Your task to perform on an android device: Search for the best rated Bluetooth earbuds on Ali express Image 0: 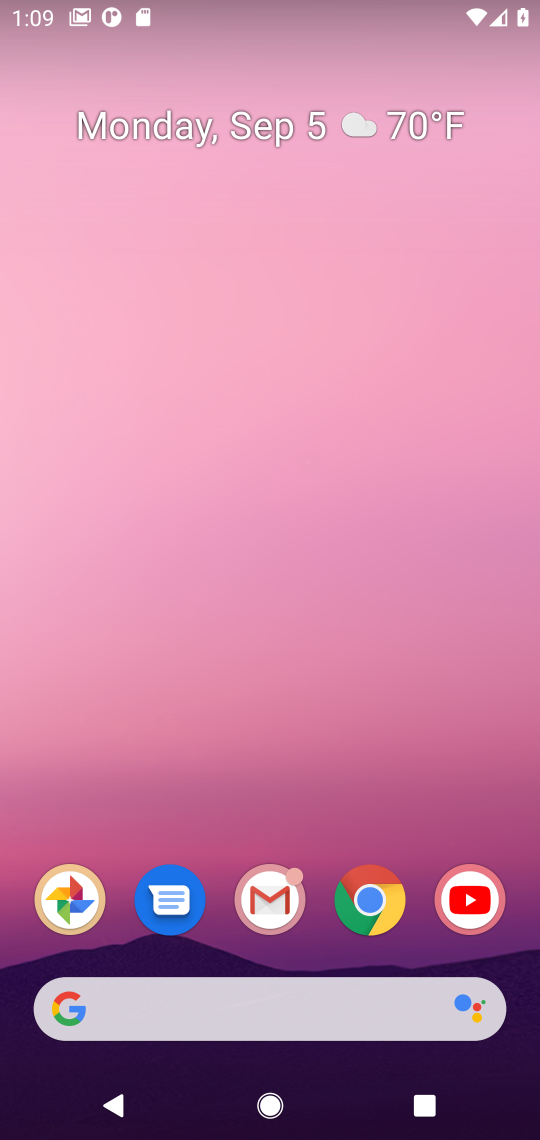
Step 0: click (364, 903)
Your task to perform on an android device: Search for the best rated Bluetooth earbuds on Ali express Image 1: 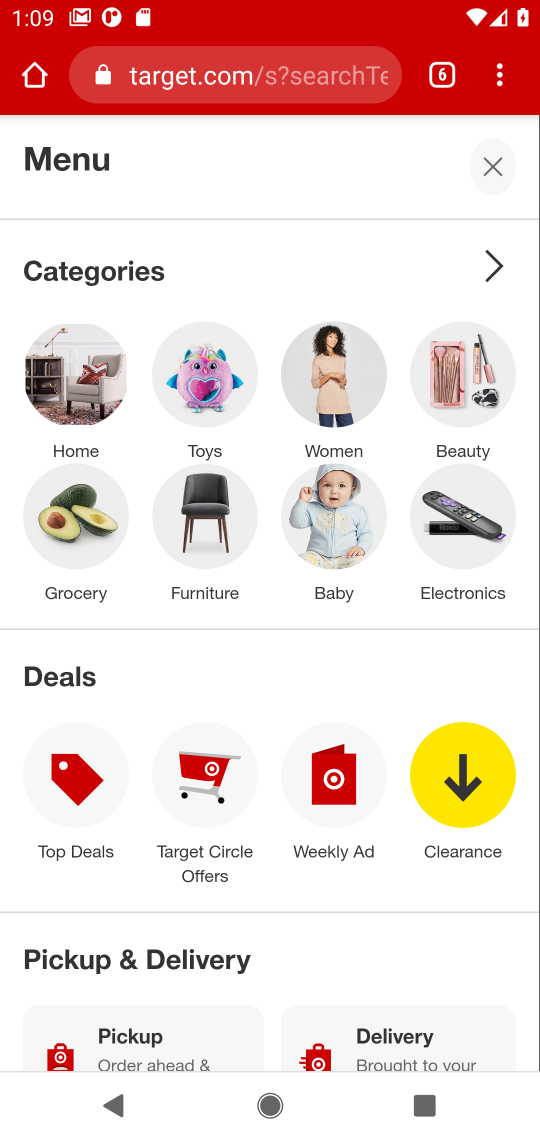
Step 1: click (496, 88)
Your task to perform on an android device: Search for the best rated Bluetooth earbuds on Ali express Image 2: 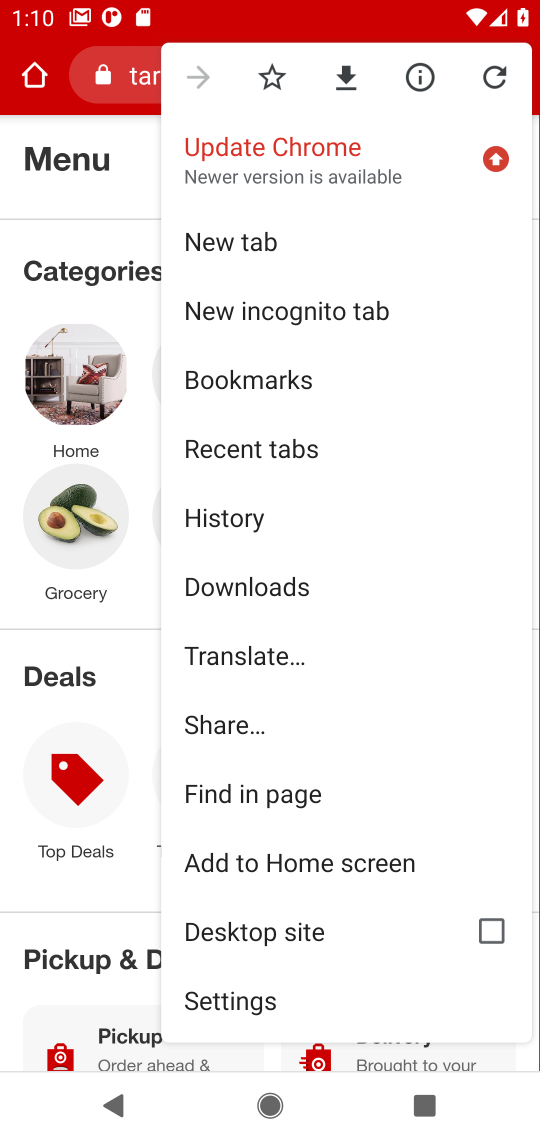
Step 2: click (237, 244)
Your task to perform on an android device: Search for the best rated Bluetooth earbuds on Ali express Image 3: 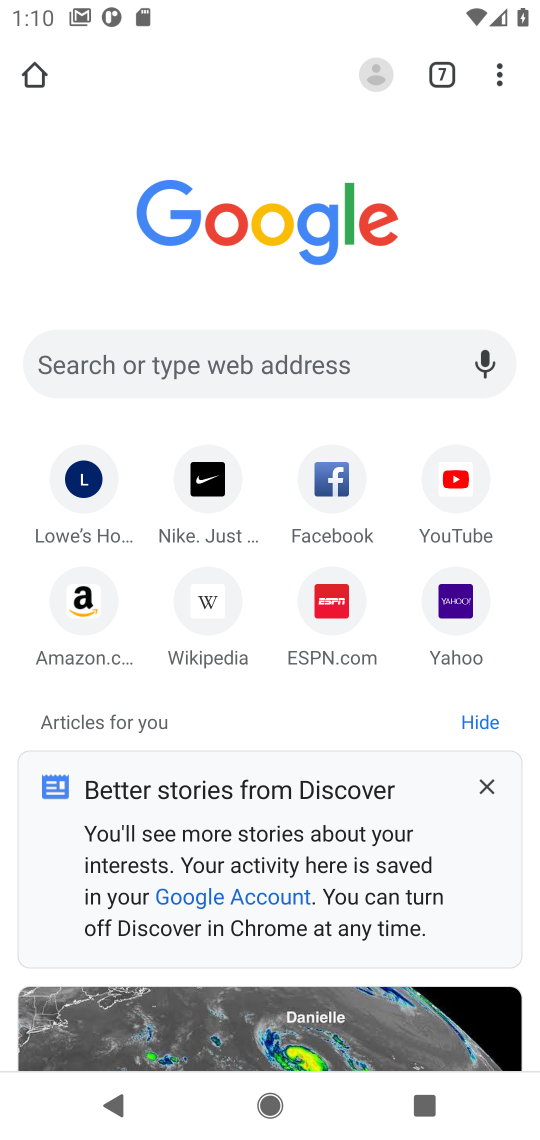
Step 3: click (229, 366)
Your task to perform on an android device: Search for the best rated Bluetooth earbuds on Ali express Image 4: 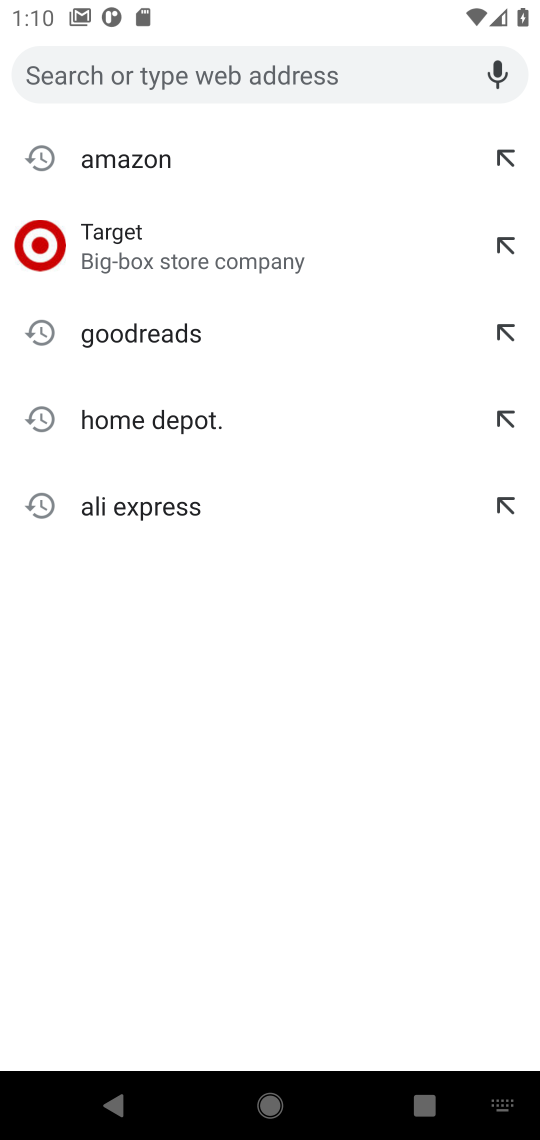
Step 4: type "Ali express"
Your task to perform on an android device: Search for the best rated Bluetooth earbuds on Ali express Image 5: 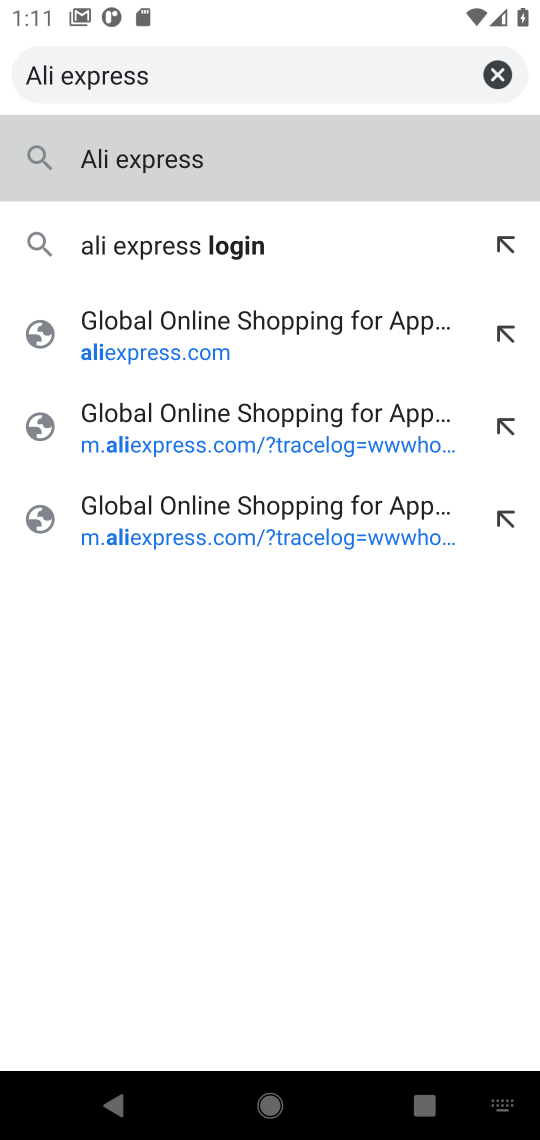
Step 5: click (180, 160)
Your task to perform on an android device: Search for the best rated Bluetooth earbuds on Ali express Image 6: 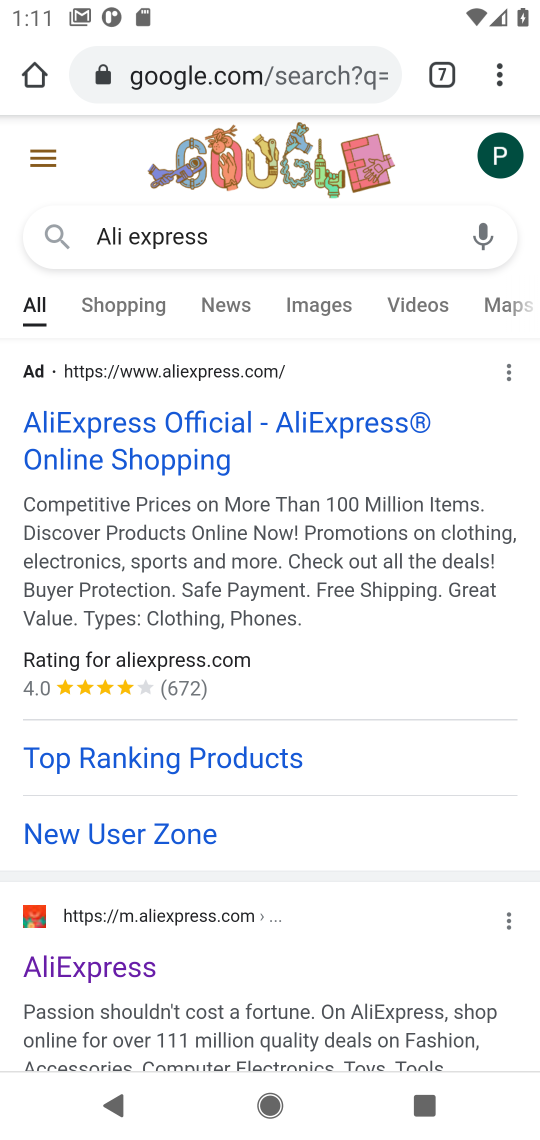
Step 6: click (118, 972)
Your task to perform on an android device: Search for the best rated Bluetooth earbuds on Ali express Image 7: 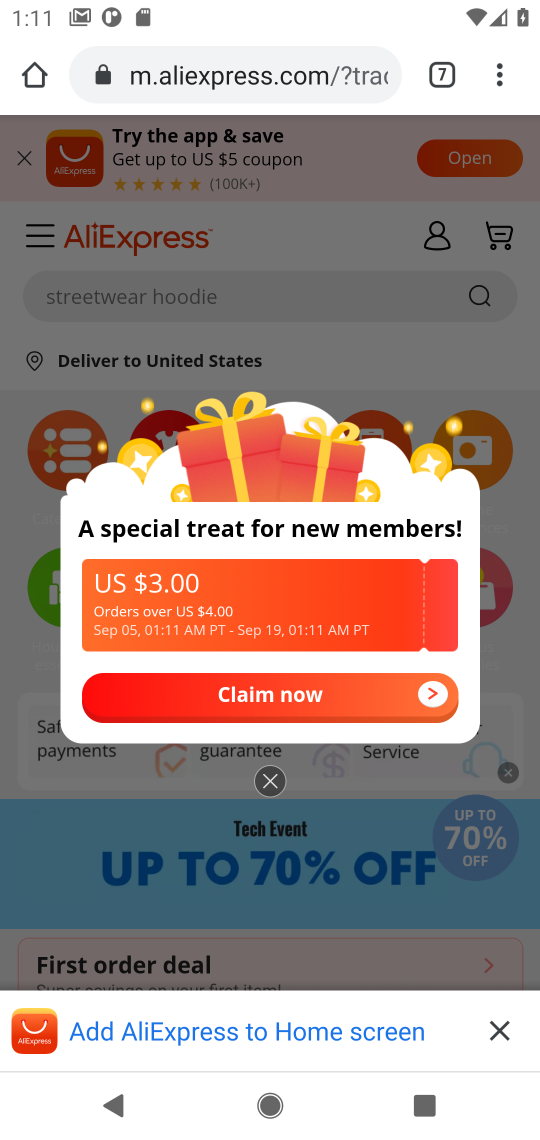
Step 7: click (277, 780)
Your task to perform on an android device: Search for the best rated Bluetooth earbuds on Ali express Image 8: 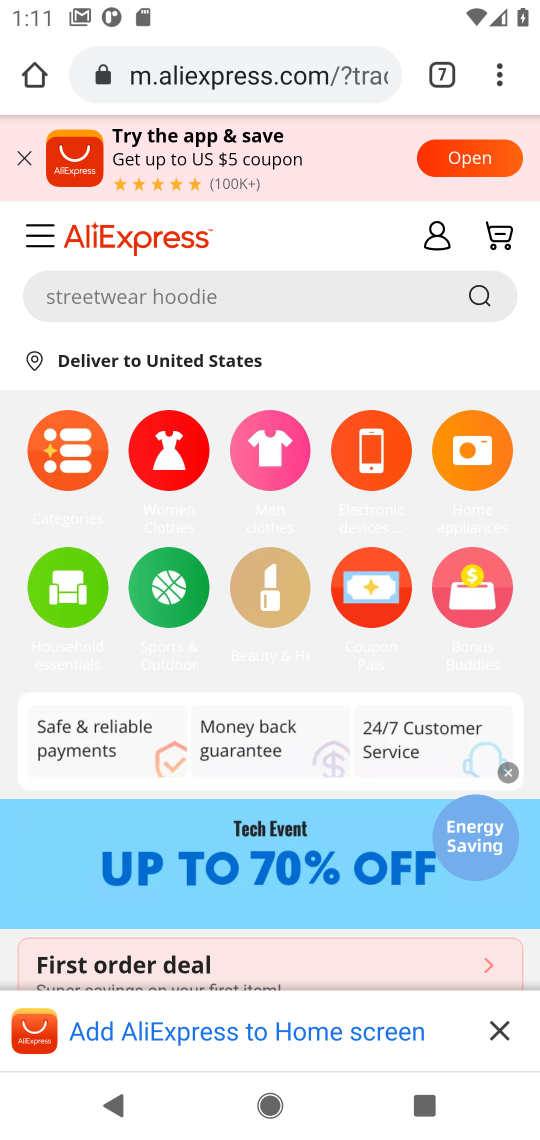
Step 8: click (182, 294)
Your task to perform on an android device: Search for the best rated Bluetooth earbuds on Ali express Image 9: 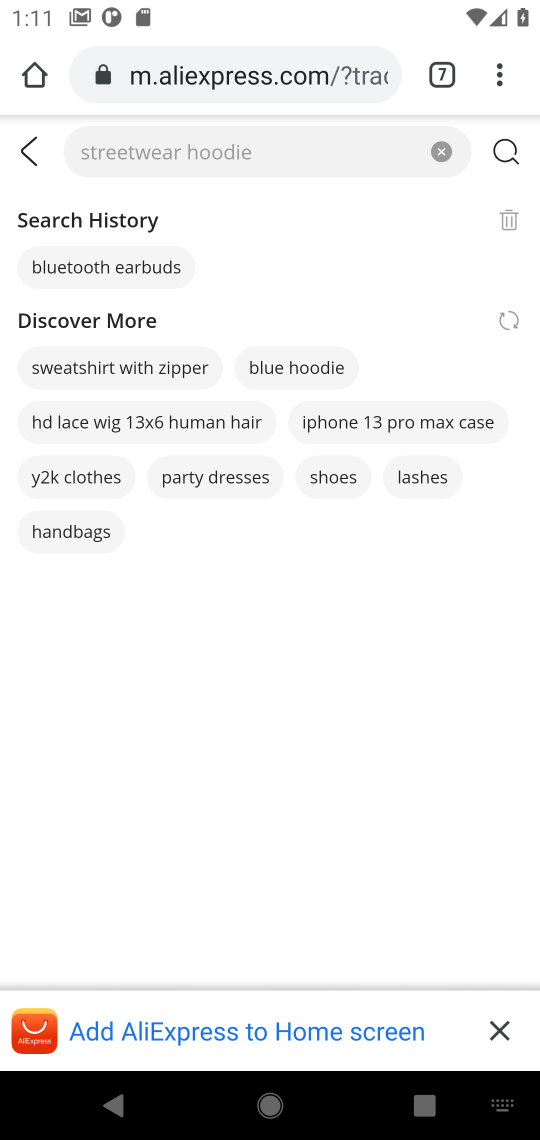
Step 9: type "Bluetooth earbuds "
Your task to perform on an android device: Search for the best rated Bluetooth earbuds on Ali express Image 10: 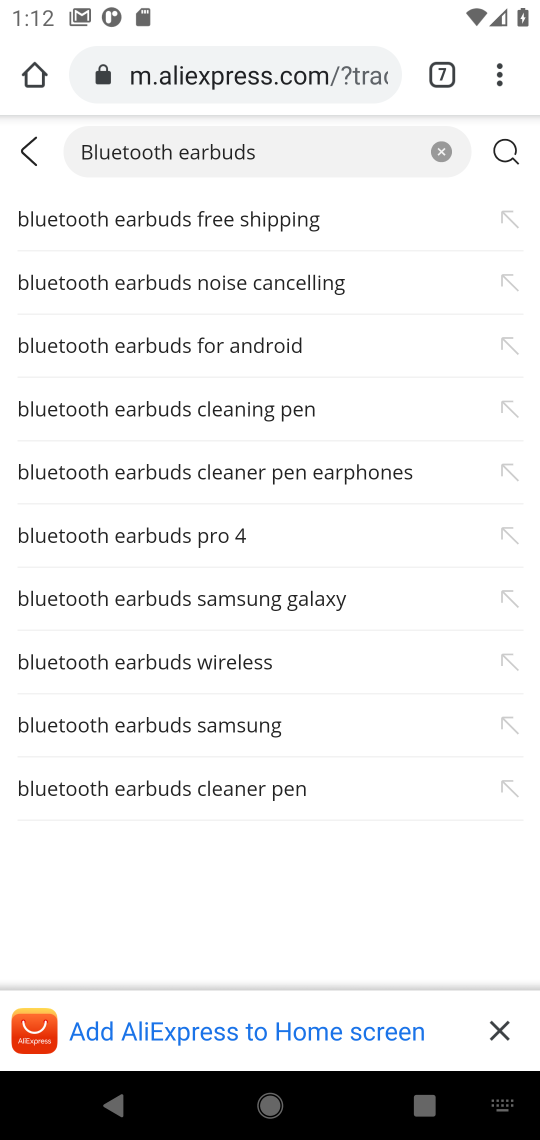
Step 10: click (498, 150)
Your task to perform on an android device: Search for the best rated Bluetooth earbuds on Ali express Image 11: 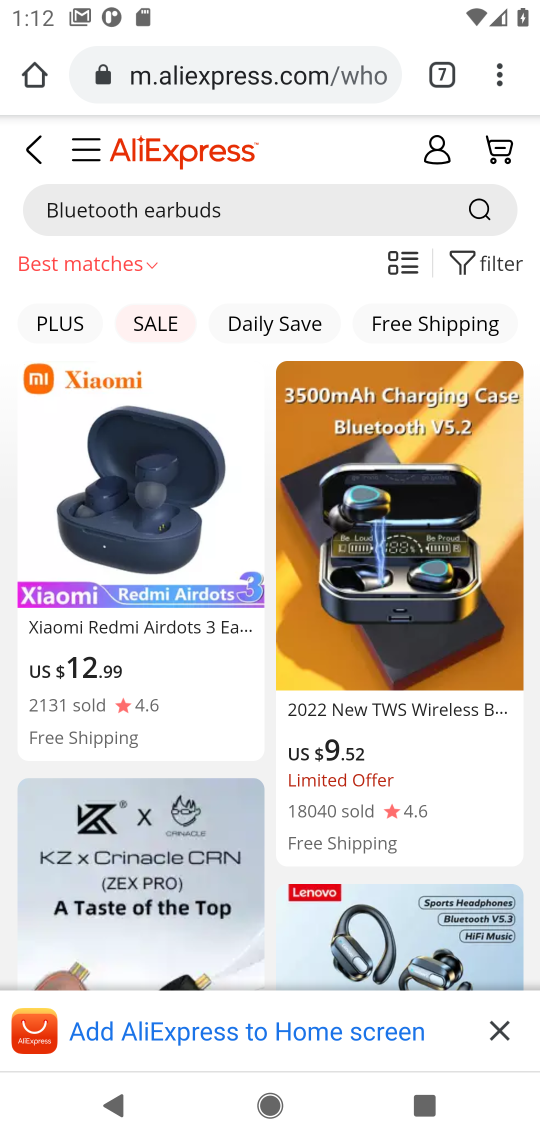
Step 11: task complete